Your task to perform on an android device: Go to accessibility settings Image 0: 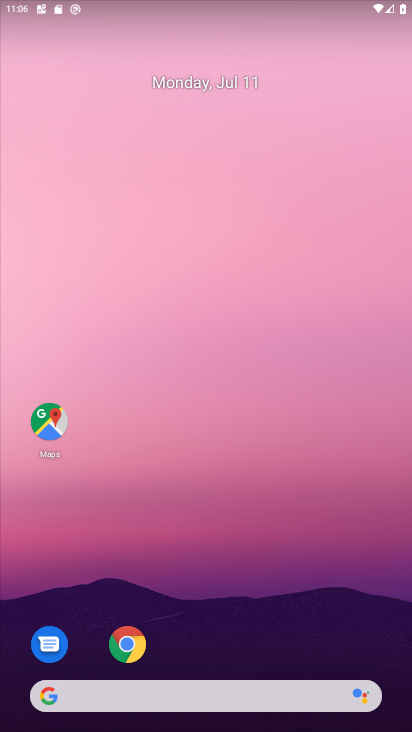
Step 0: drag from (331, 585) to (261, 6)
Your task to perform on an android device: Go to accessibility settings Image 1: 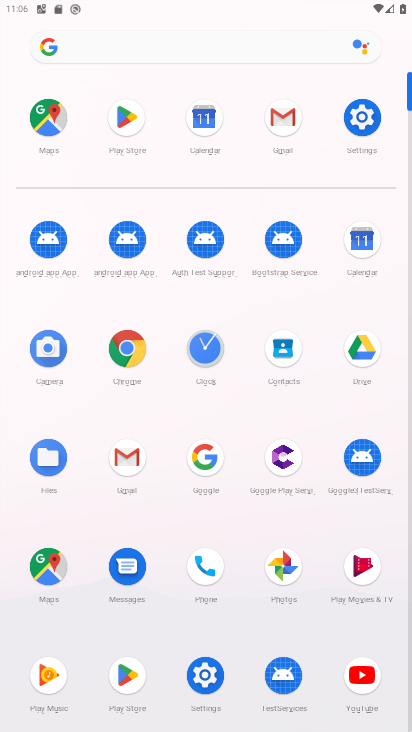
Step 1: click (363, 132)
Your task to perform on an android device: Go to accessibility settings Image 2: 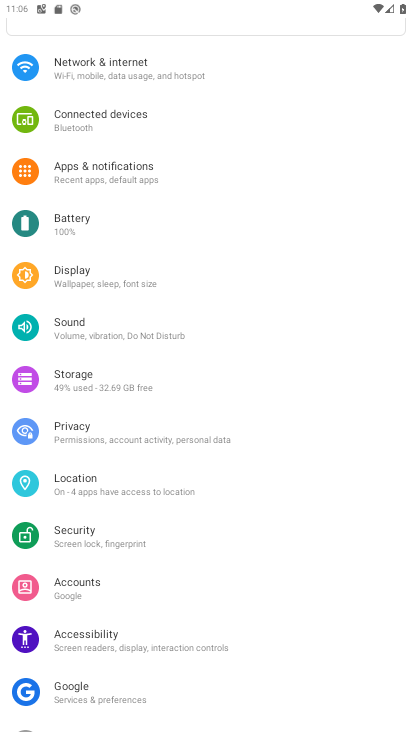
Step 2: click (192, 631)
Your task to perform on an android device: Go to accessibility settings Image 3: 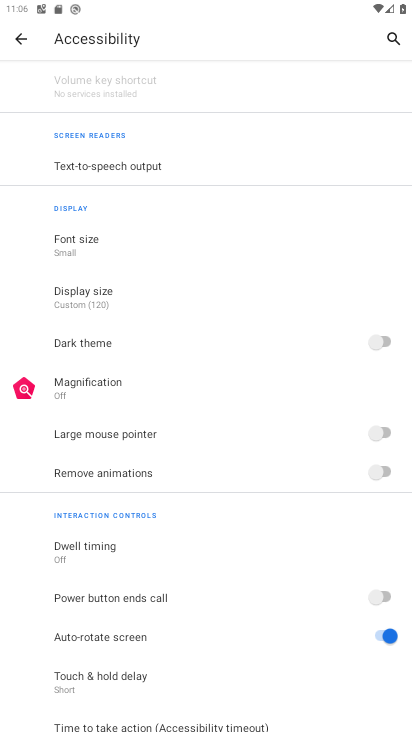
Step 3: task complete